Your task to perform on an android device: Open settings on Google Maps Image 0: 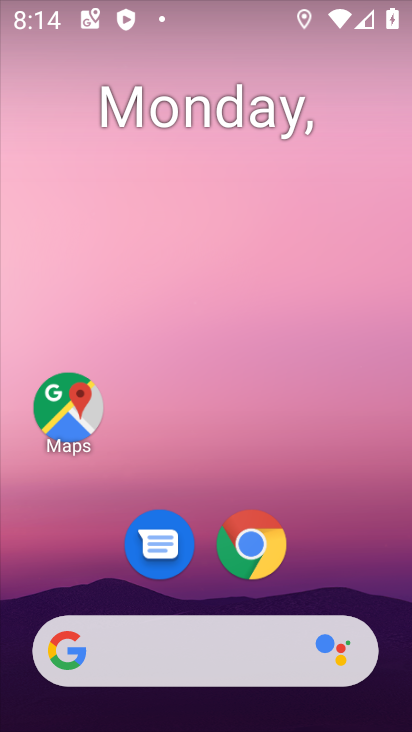
Step 0: click (79, 405)
Your task to perform on an android device: Open settings on Google Maps Image 1: 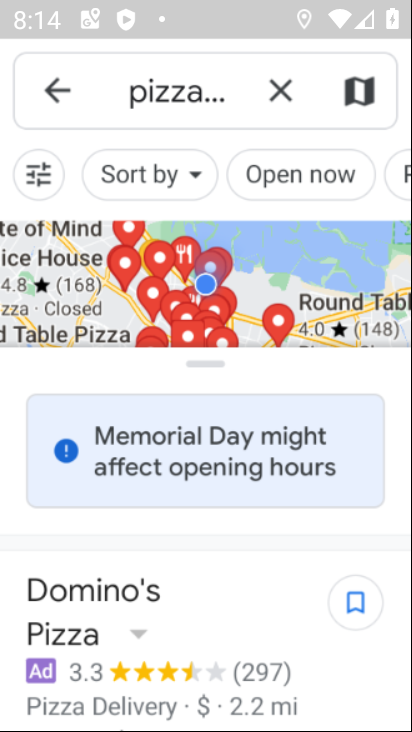
Step 1: click (60, 86)
Your task to perform on an android device: Open settings on Google Maps Image 2: 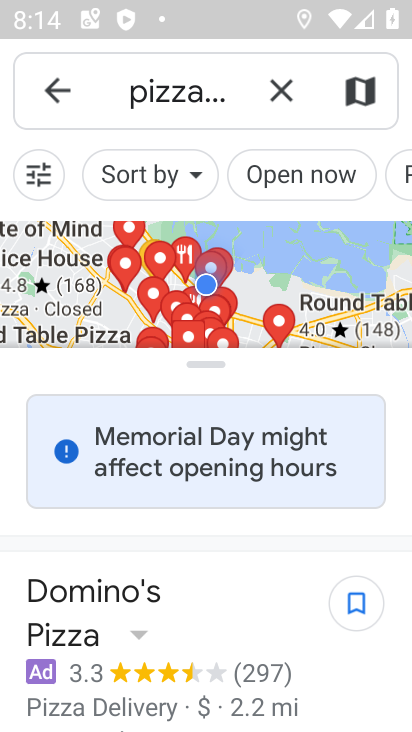
Step 2: click (57, 109)
Your task to perform on an android device: Open settings on Google Maps Image 3: 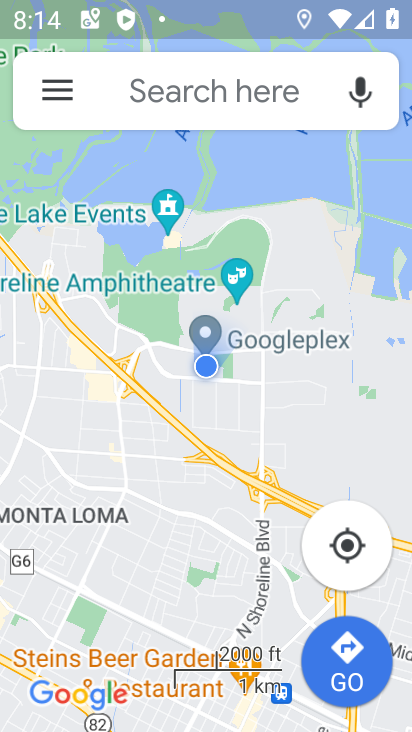
Step 3: click (50, 98)
Your task to perform on an android device: Open settings on Google Maps Image 4: 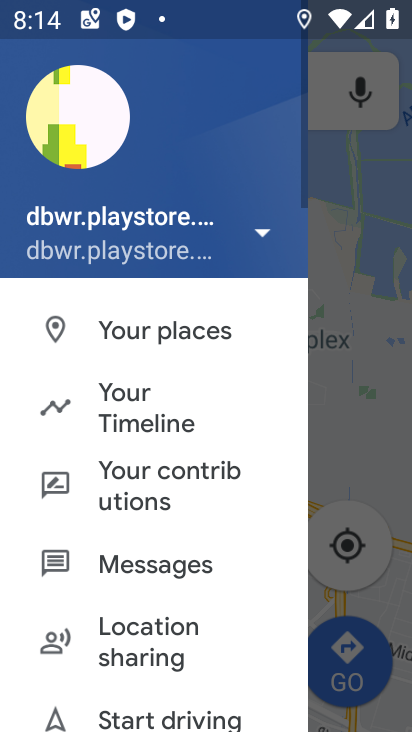
Step 4: drag from (176, 605) to (106, 121)
Your task to perform on an android device: Open settings on Google Maps Image 5: 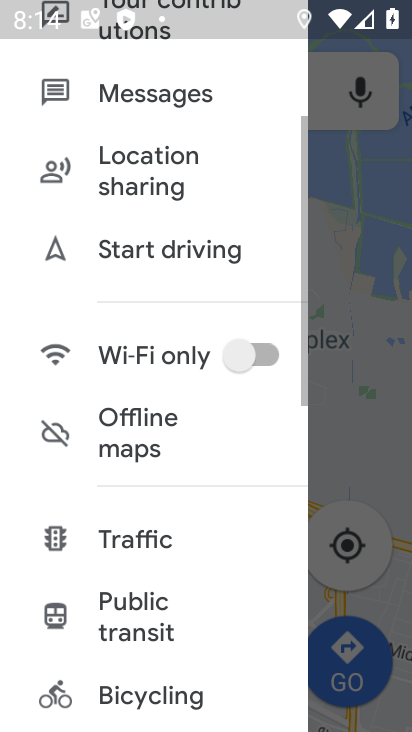
Step 5: drag from (139, 658) to (75, 168)
Your task to perform on an android device: Open settings on Google Maps Image 6: 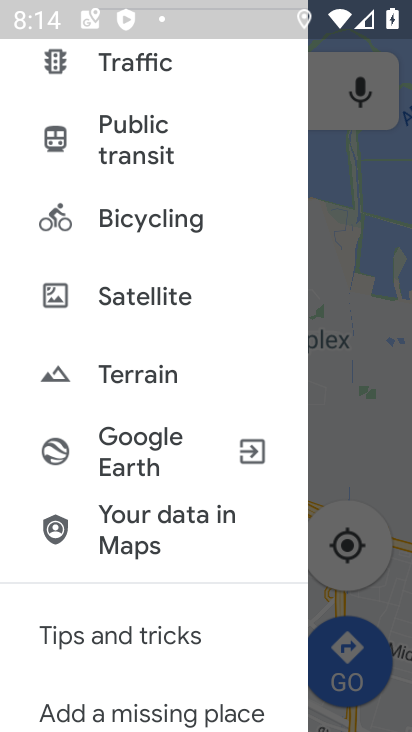
Step 6: drag from (132, 650) to (65, 175)
Your task to perform on an android device: Open settings on Google Maps Image 7: 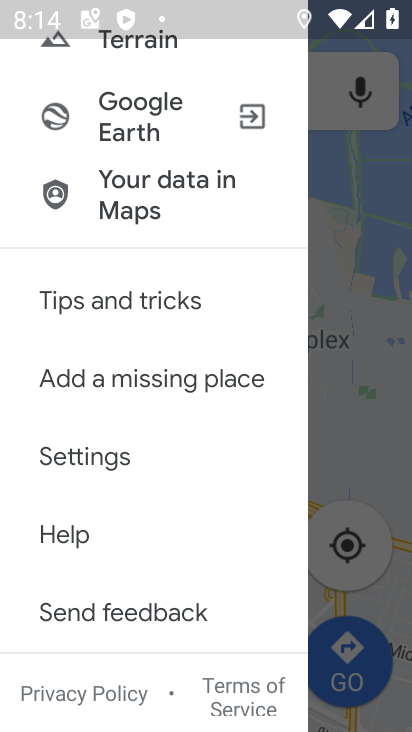
Step 7: click (73, 450)
Your task to perform on an android device: Open settings on Google Maps Image 8: 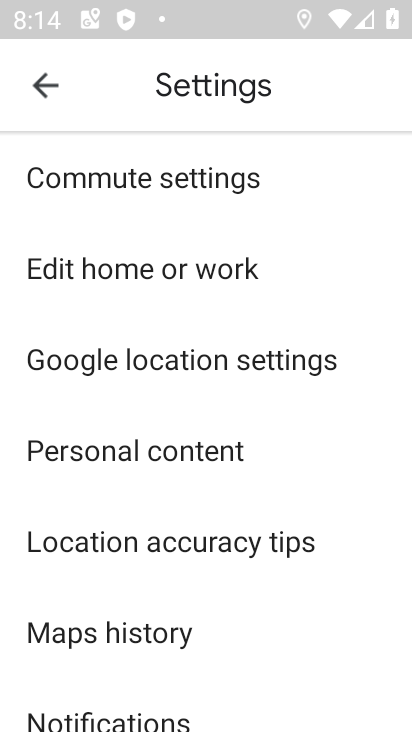
Step 8: task complete